Your task to perform on an android device: Open sound settings Image 0: 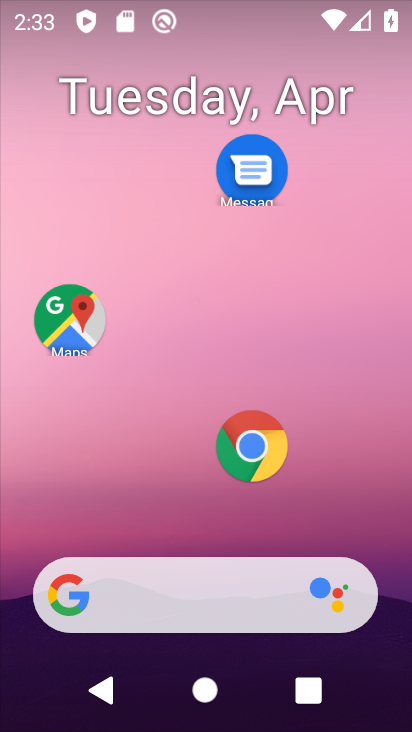
Step 0: drag from (175, 505) to (197, 172)
Your task to perform on an android device: Open sound settings Image 1: 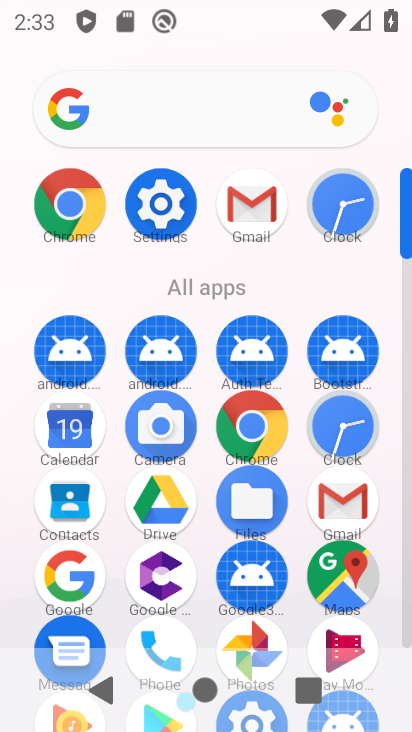
Step 1: click (166, 203)
Your task to perform on an android device: Open sound settings Image 2: 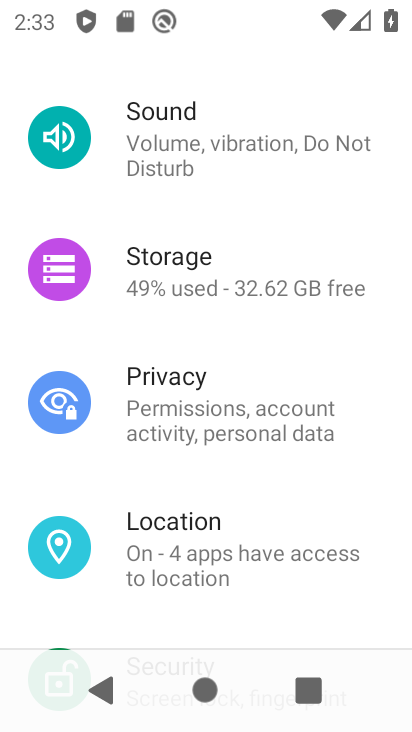
Step 2: click (231, 152)
Your task to perform on an android device: Open sound settings Image 3: 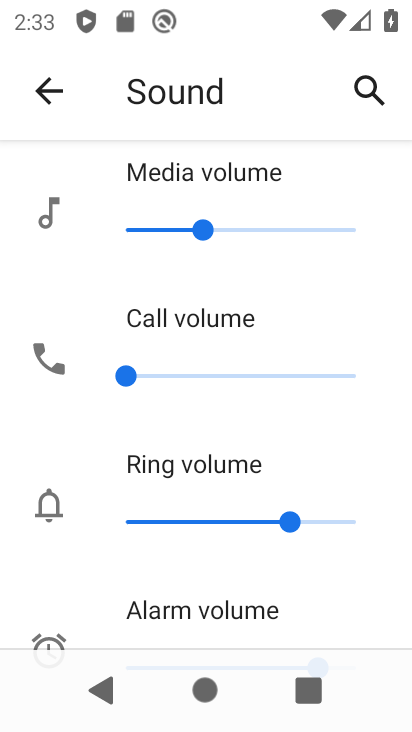
Step 3: task complete